Your task to perform on an android device: Open Google Chrome Image 0: 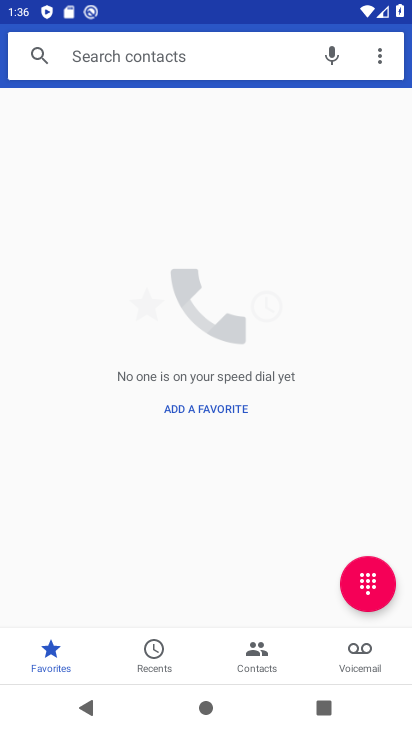
Step 0: press home button
Your task to perform on an android device: Open Google Chrome Image 1: 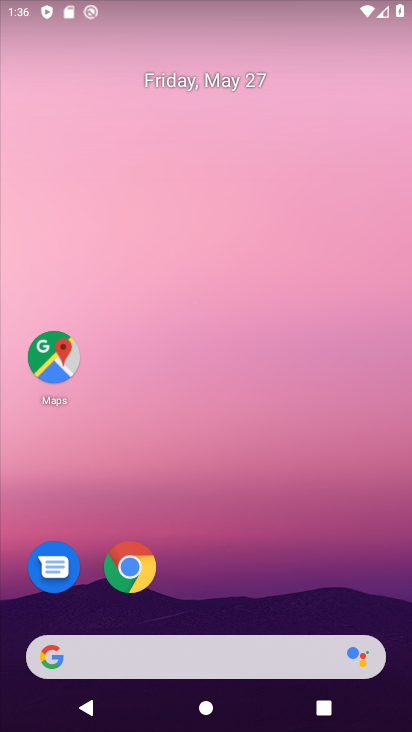
Step 1: click (145, 561)
Your task to perform on an android device: Open Google Chrome Image 2: 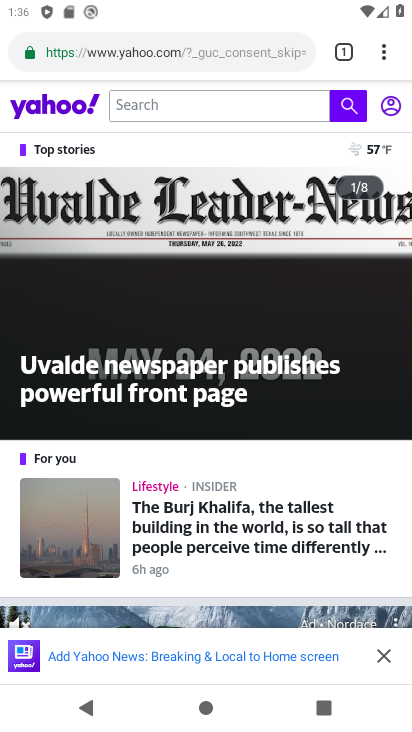
Step 2: task complete